Your task to perform on an android device: turn smart compose on in the gmail app Image 0: 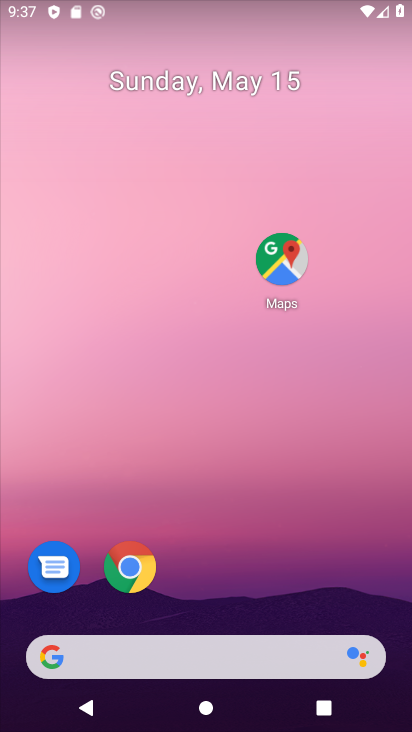
Step 0: drag from (246, 366) to (179, 123)
Your task to perform on an android device: turn smart compose on in the gmail app Image 1: 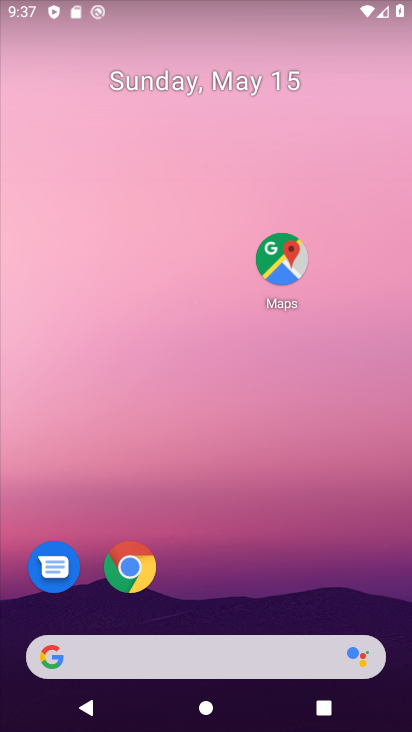
Step 1: drag from (237, 588) to (237, 105)
Your task to perform on an android device: turn smart compose on in the gmail app Image 2: 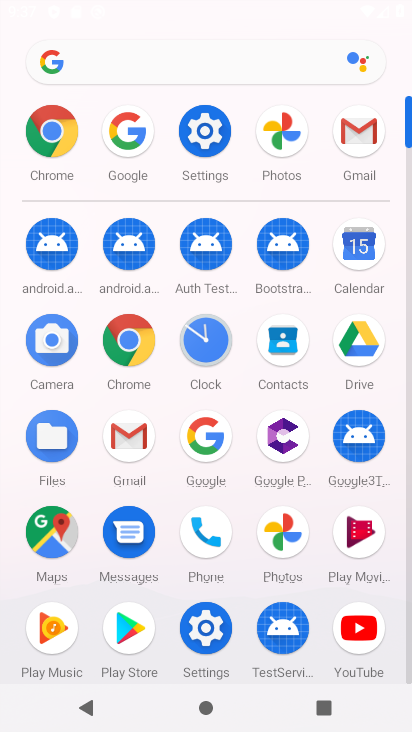
Step 2: click (357, 132)
Your task to perform on an android device: turn smart compose on in the gmail app Image 3: 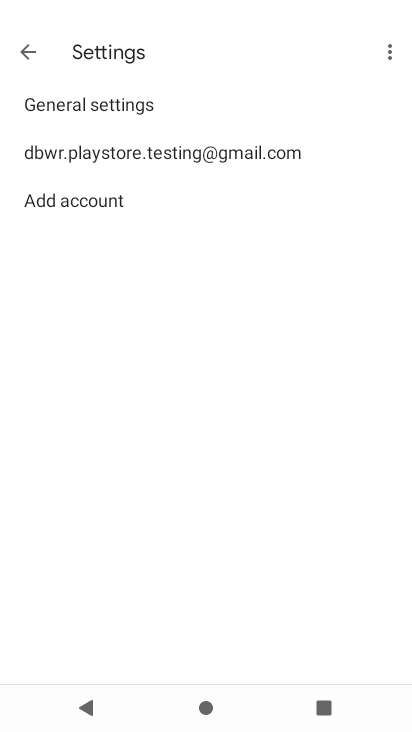
Step 3: click (132, 149)
Your task to perform on an android device: turn smart compose on in the gmail app Image 4: 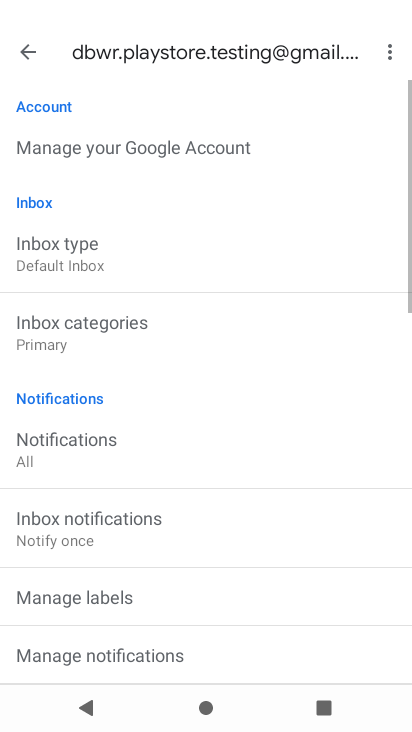
Step 4: task complete